Your task to perform on an android device: Go to display settings Image 0: 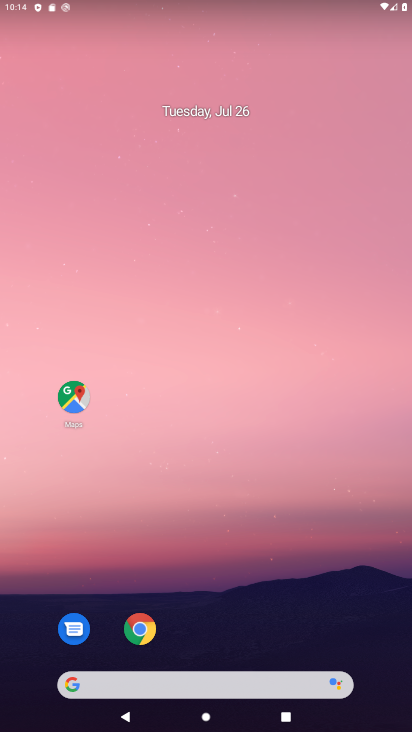
Step 0: drag from (295, 653) to (295, 84)
Your task to perform on an android device: Go to display settings Image 1: 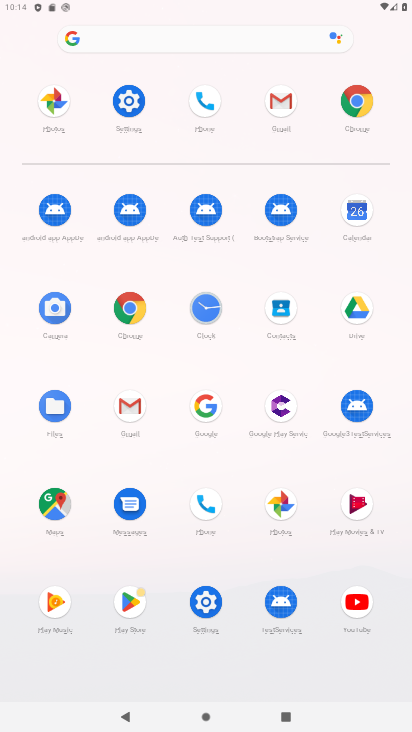
Step 1: click (203, 630)
Your task to perform on an android device: Go to display settings Image 2: 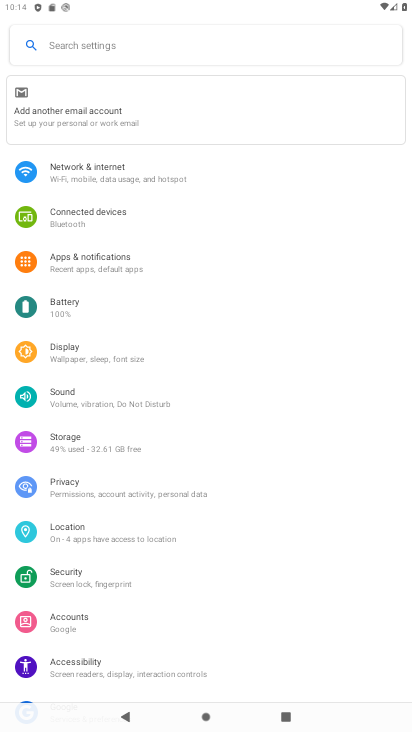
Step 2: click (89, 348)
Your task to perform on an android device: Go to display settings Image 3: 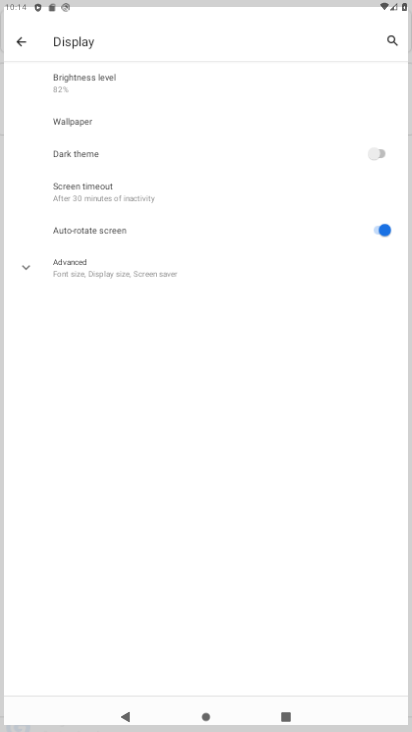
Step 3: task complete